Your task to perform on an android device: Open internet settings Image 0: 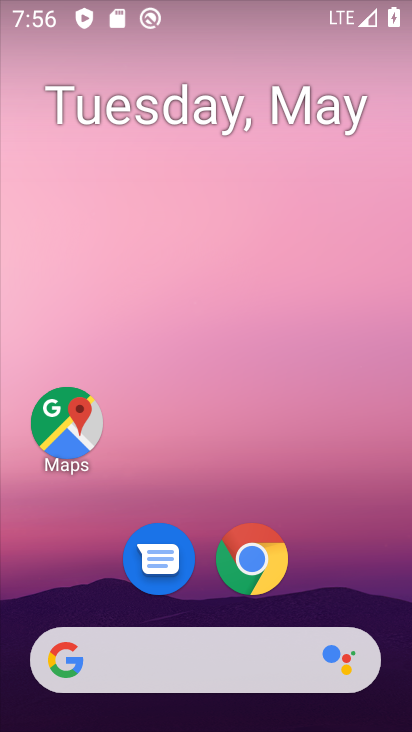
Step 0: drag from (363, 620) to (237, 97)
Your task to perform on an android device: Open internet settings Image 1: 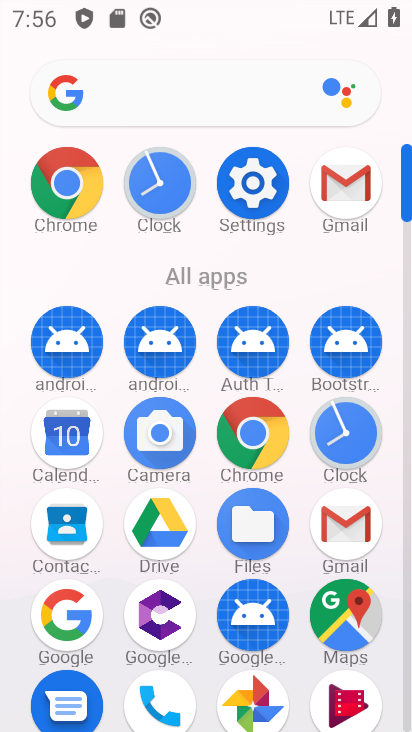
Step 1: click (257, 172)
Your task to perform on an android device: Open internet settings Image 2: 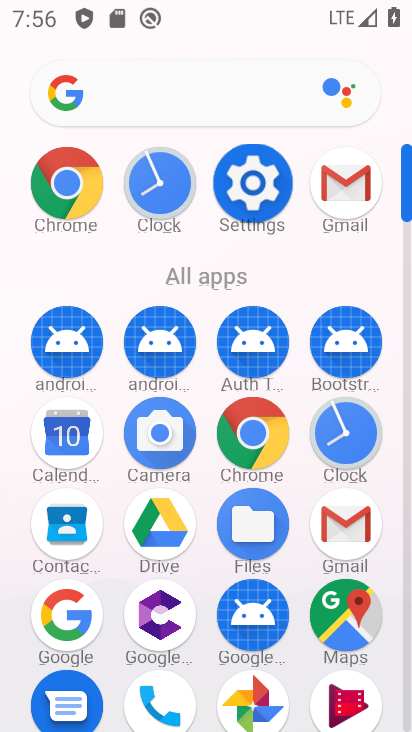
Step 2: click (256, 180)
Your task to perform on an android device: Open internet settings Image 3: 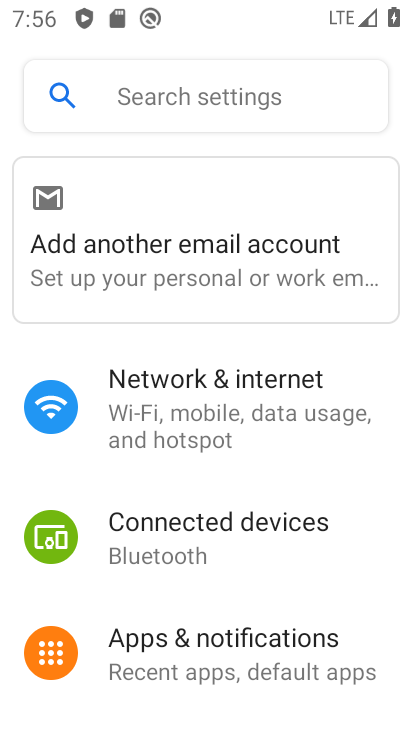
Step 3: click (207, 402)
Your task to perform on an android device: Open internet settings Image 4: 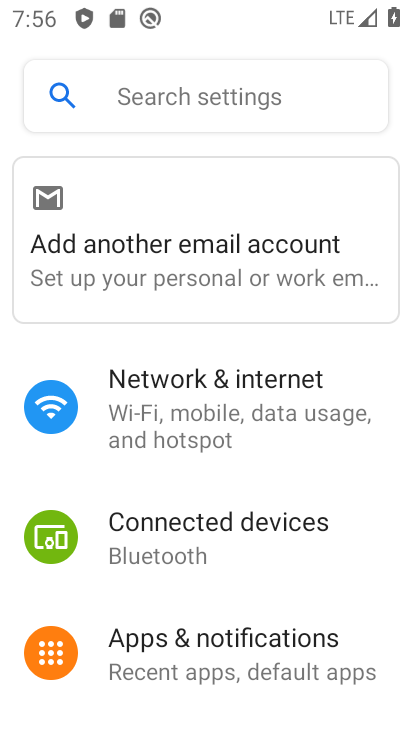
Step 4: click (206, 403)
Your task to perform on an android device: Open internet settings Image 5: 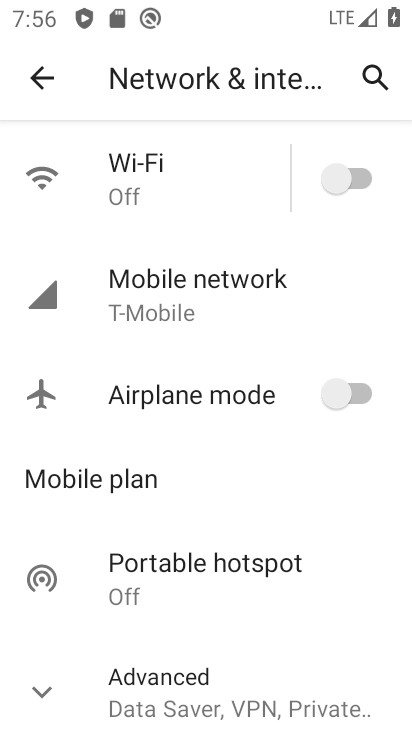
Step 5: task complete